Your task to perform on an android device: Open Google Maps Image 0: 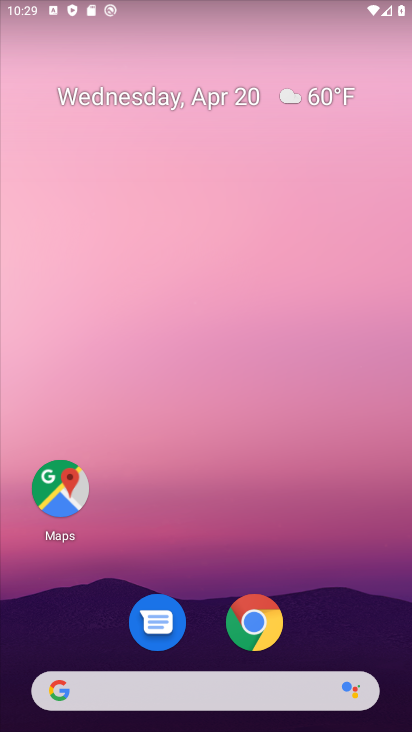
Step 0: drag from (301, 497) to (213, 43)
Your task to perform on an android device: Open Google Maps Image 1: 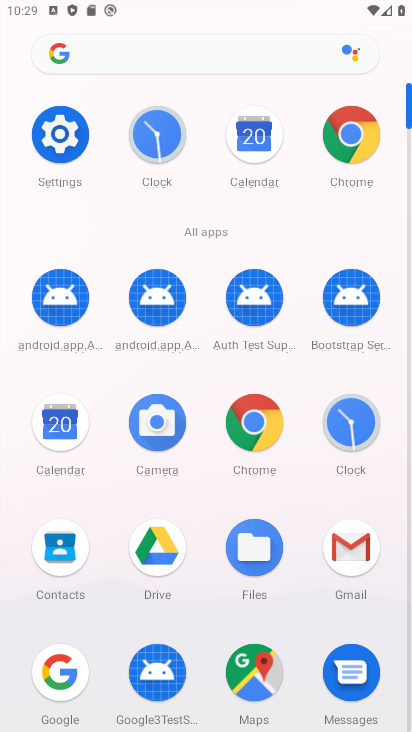
Step 1: click (255, 675)
Your task to perform on an android device: Open Google Maps Image 2: 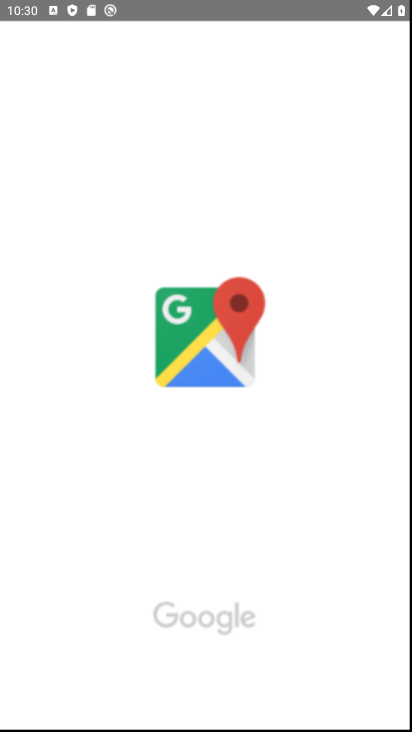
Step 2: task complete